Your task to perform on an android device: Open battery settings Image 0: 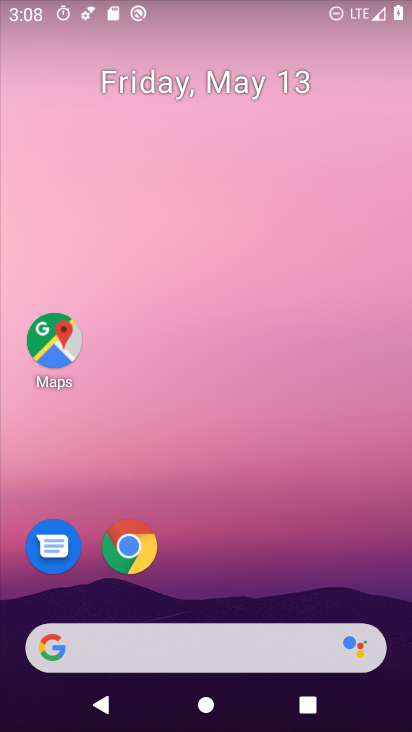
Step 0: drag from (220, 623) to (234, 400)
Your task to perform on an android device: Open battery settings Image 1: 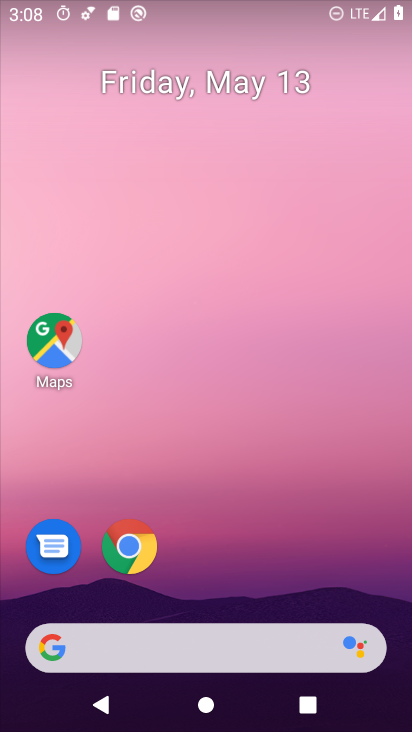
Step 1: drag from (193, 508) to (235, 178)
Your task to perform on an android device: Open battery settings Image 2: 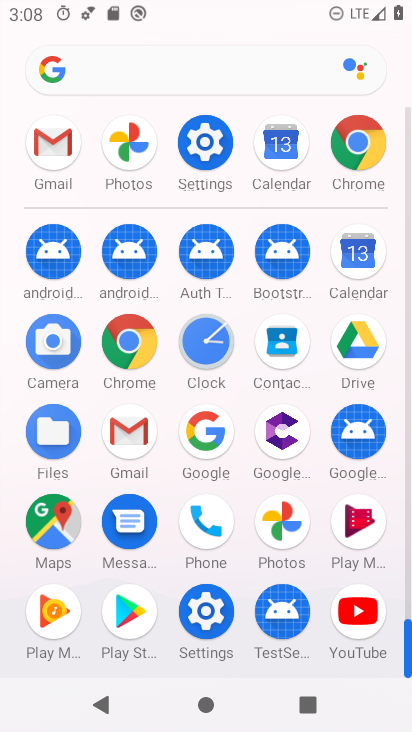
Step 2: click (219, 168)
Your task to perform on an android device: Open battery settings Image 3: 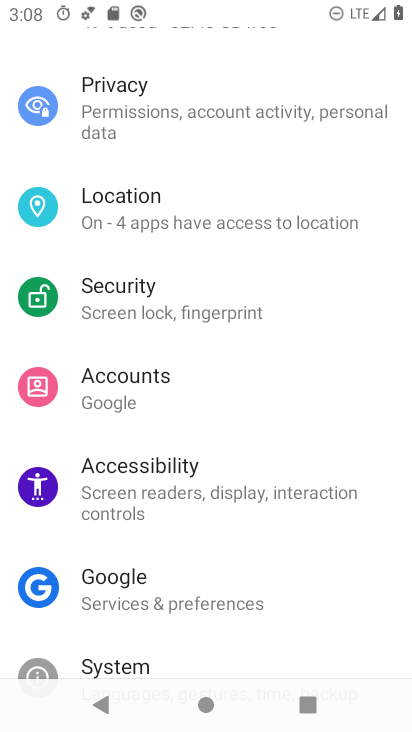
Step 3: drag from (199, 260) to (191, 557)
Your task to perform on an android device: Open battery settings Image 4: 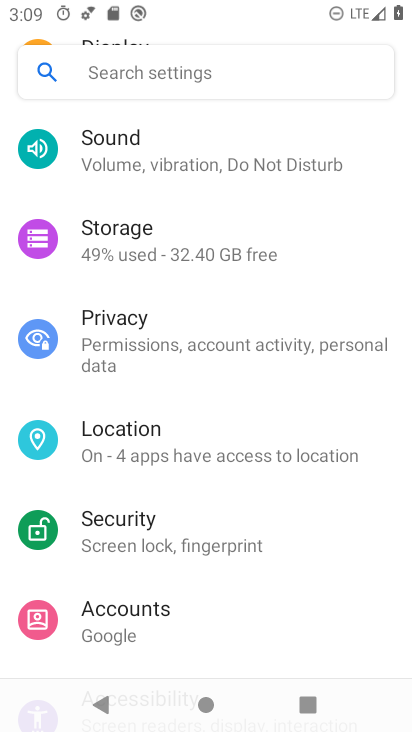
Step 4: drag from (173, 326) to (141, 610)
Your task to perform on an android device: Open battery settings Image 5: 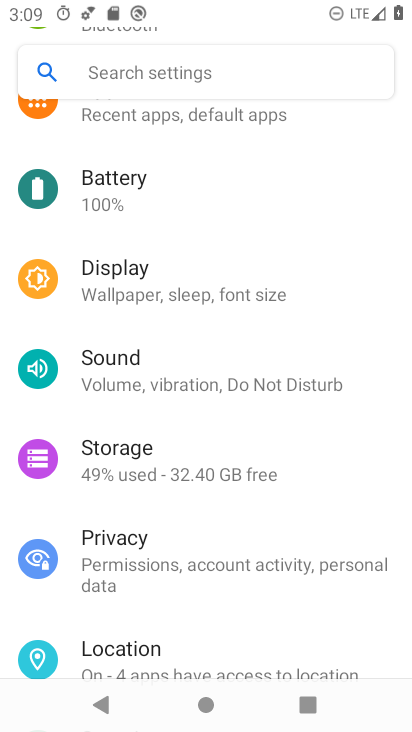
Step 5: drag from (175, 253) to (163, 423)
Your task to perform on an android device: Open battery settings Image 6: 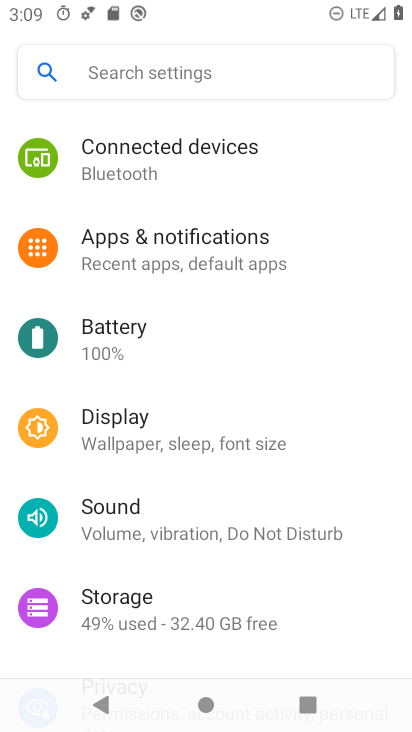
Step 6: click (153, 340)
Your task to perform on an android device: Open battery settings Image 7: 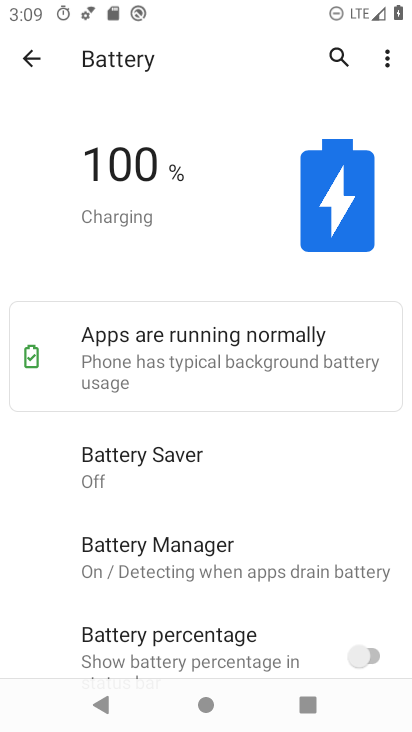
Step 7: task complete